Your task to perform on an android device: delete browsing data in the chrome app Image 0: 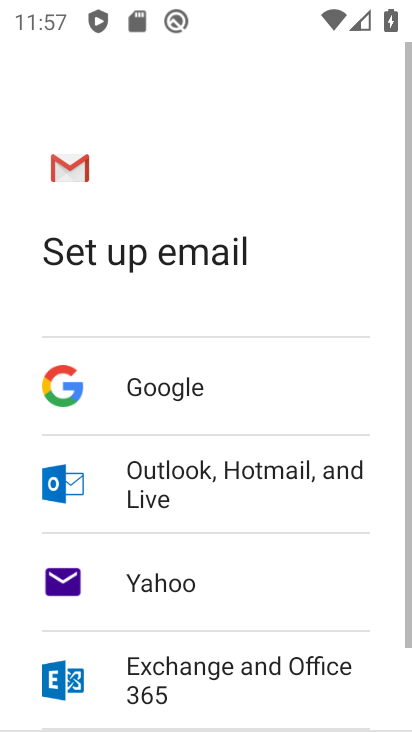
Step 0: drag from (239, 529) to (353, 94)
Your task to perform on an android device: delete browsing data in the chrome app Image 1: 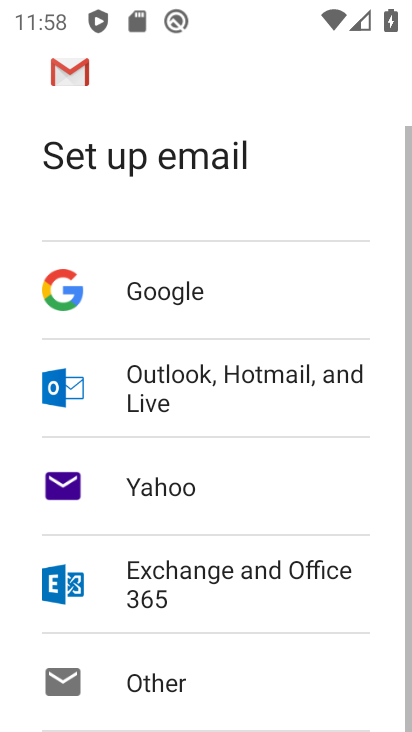
Step 1: press back button
Your task to perform on an android device: delete browsing data in the chrome app Image 2: 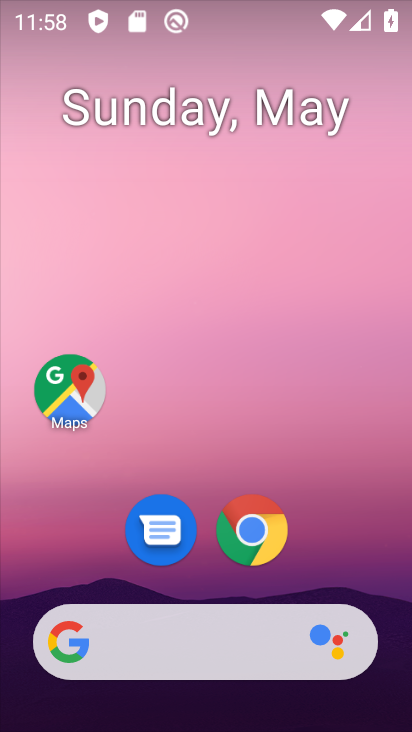
Step 2: click (248, 547)
Your task to perform on an android device: delete browsing data in the chrome app Image 3: 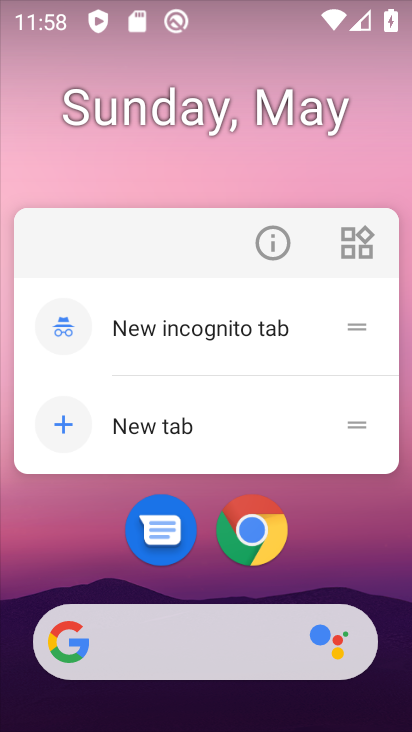
Step 3: click (256, 534)
Your task to perform on an android device: delete browsing data in the chrome app Image 4: 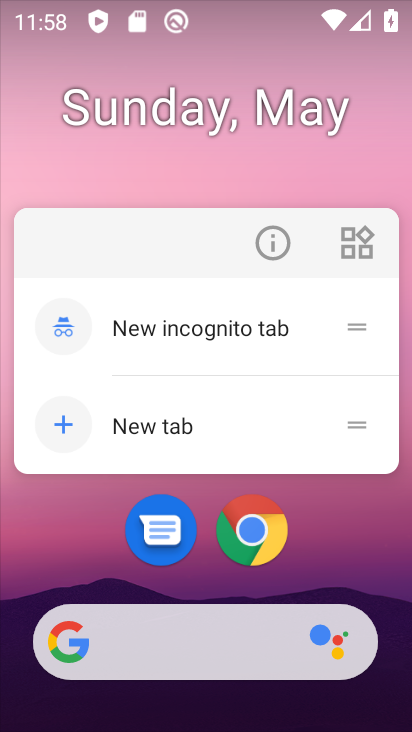
Step 4: click (253, 521)
Your task to perform on an android device: delete browsing data in the chrome app Image 5: 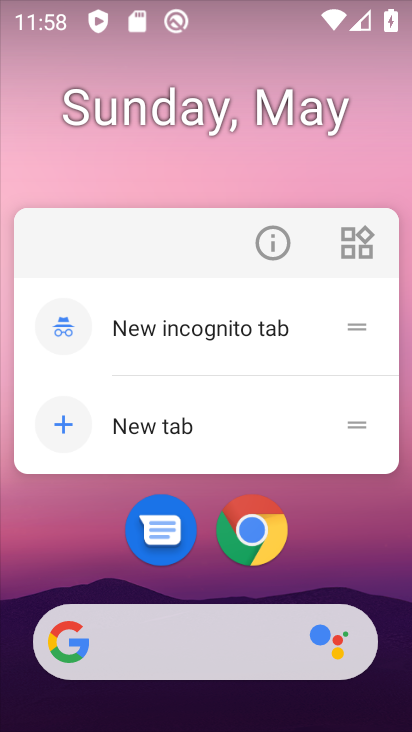
Step 5: click (247, 522)
Your task to perform on an android device: delete browsing data in the chrome app Image 6: 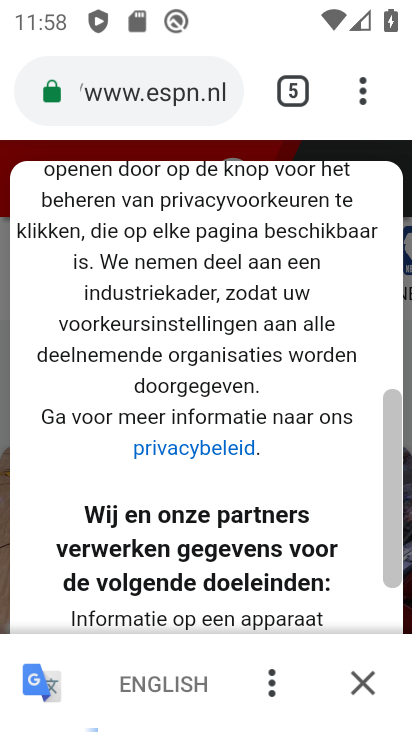
Step 6: drag from (357, 84) to (88, 514)
Your task to perform on an android device: delete browsing data in the chrome app Image 7: 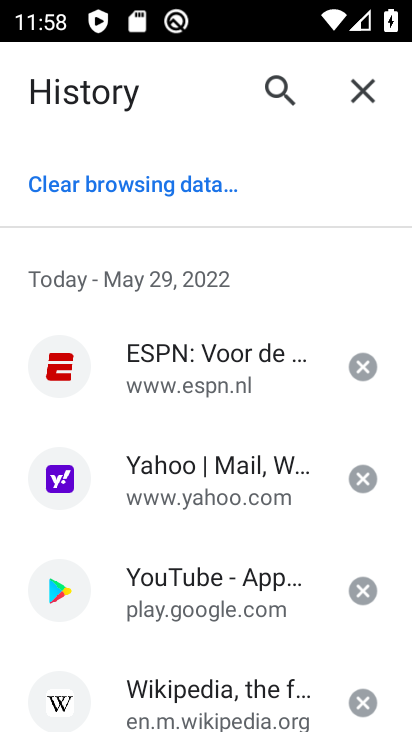
Step 7: click (169, 183)
Your task to perform on an android device: delete browsing data in the chrome app Image 8: 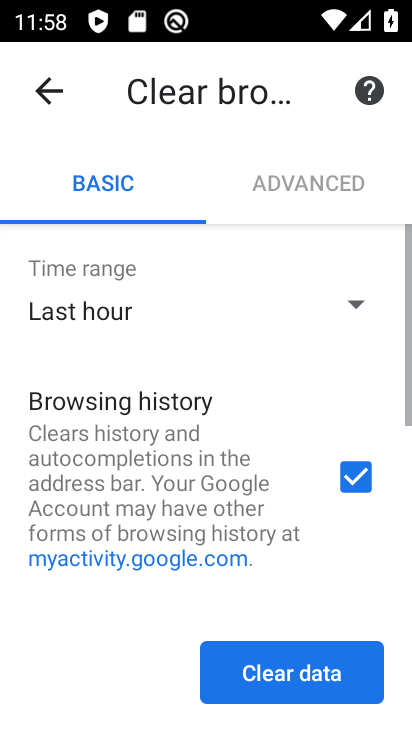
Step 8: drag from (250, 580) to (307, 199)
Your task to perform on an android device: delete browsing data in the chrome app Image 9: 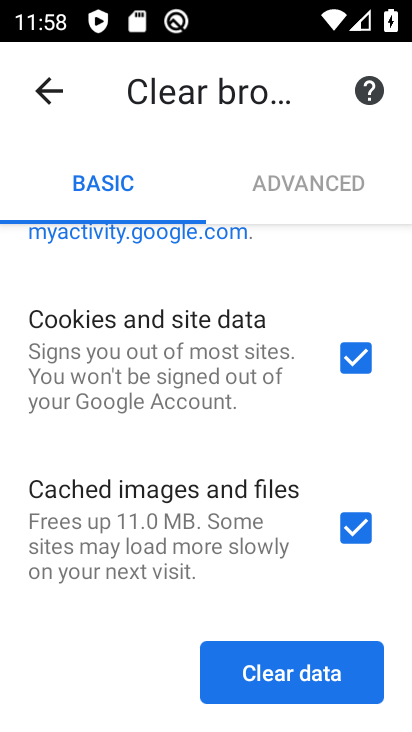
Step 9: click (262, 665)
Your task to perform on an android device: delete browsing data in the chrome app Image 10: 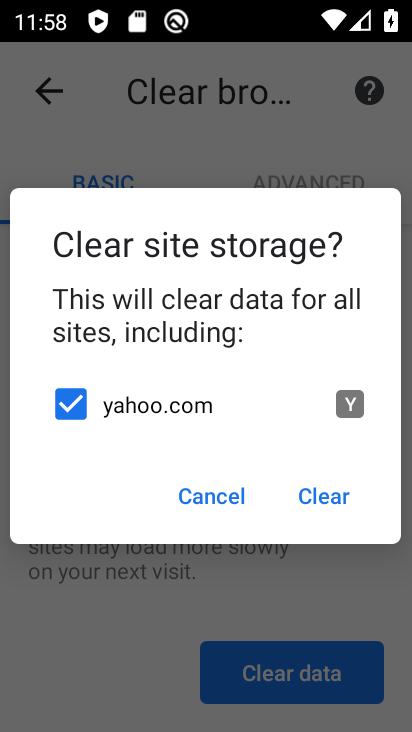
Step 10: click (313, 482)
Your task to perform on an android device: delete browsing data in the chrome app Image 11: 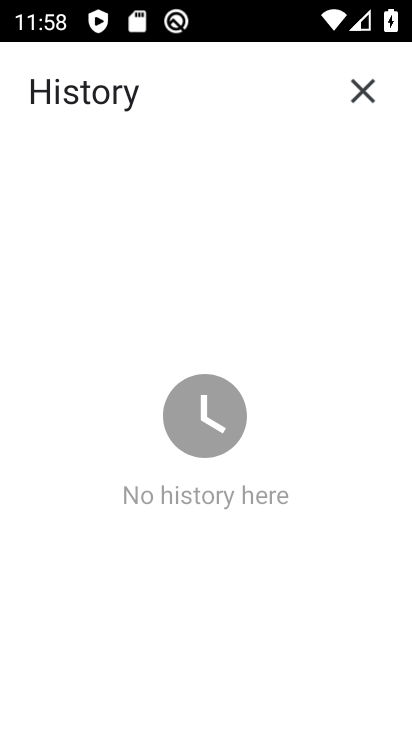
Step 11: task complete